Your task to perform on an android device: Open calendar and show me the first week of next month Image 0: 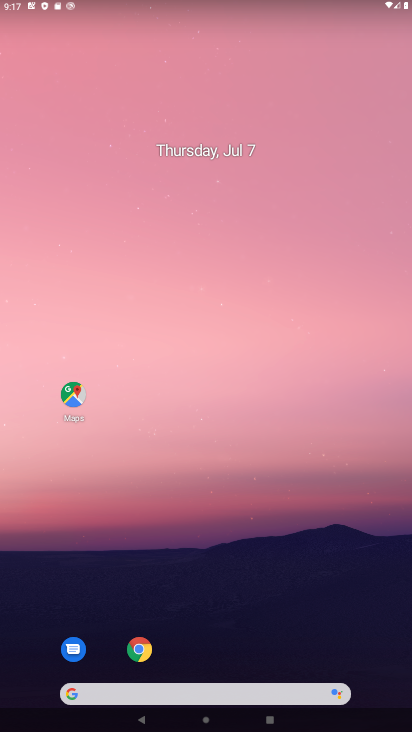
Step 0: drag from (233, 724) to (207, 152)
Your task to perform on an android device: Open calendar and show me the first week of next month Image 1: 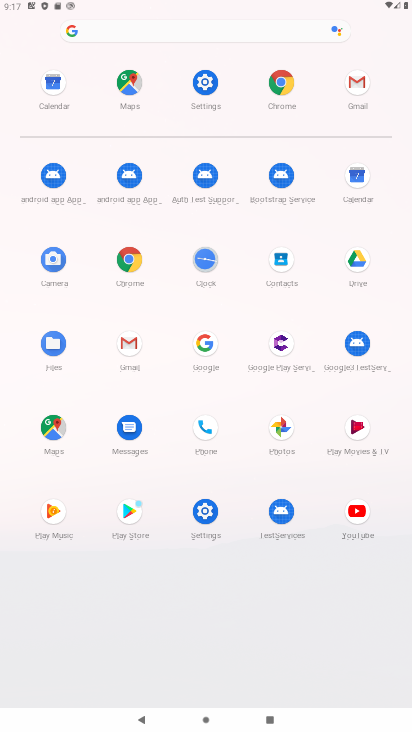
Step 1: click (363, 171)
Your task to perform on an android device: Open calendar and show me the first week of next month Image 2: 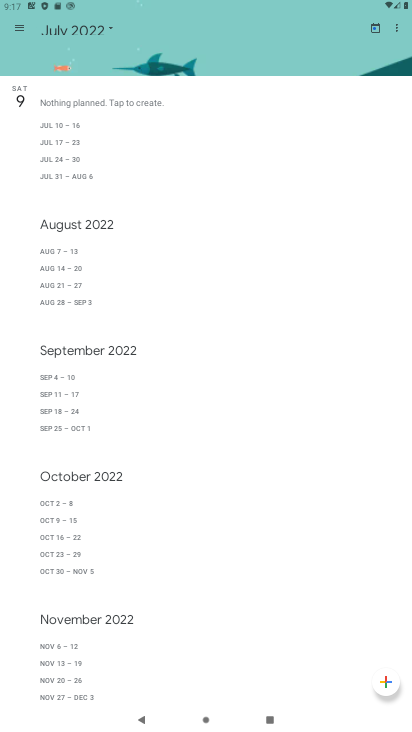
Step 2: click (105, 27)
Your task to perform on an android device: Open calendar and show me the first week of next month Image 3: 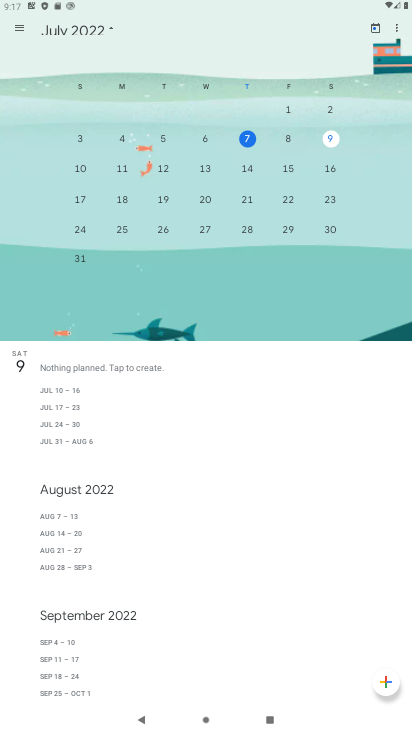
Step 3: drag from (295, 179) to (34, 382)
Your task to perform on an android device: Open calendar and show me the first week of next month Image 4: 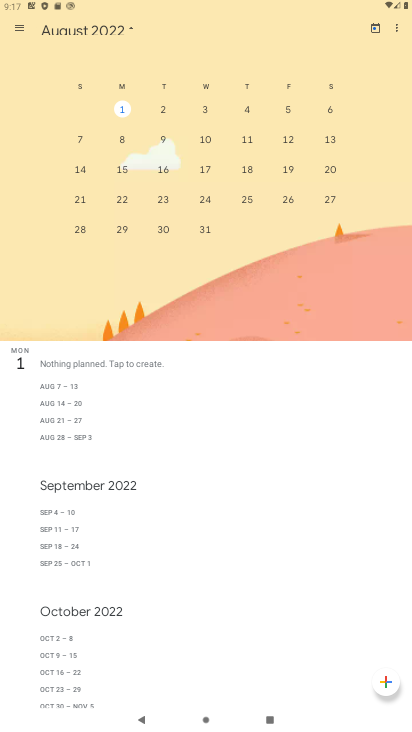
Step 4: click (16, 28)
Your task to perform on an android device: Open calendar and show me the first week of next month Image 5: 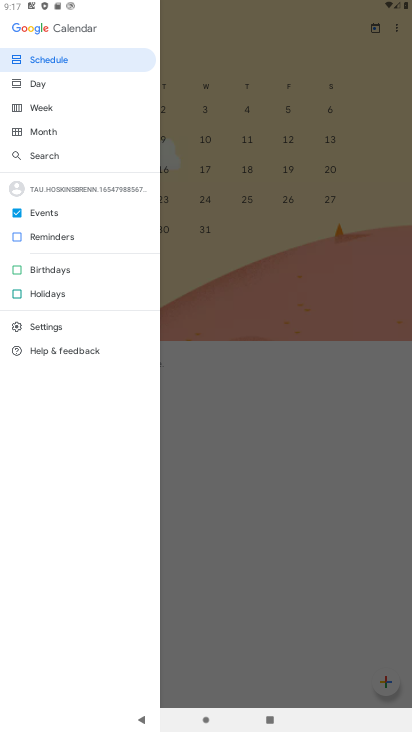
Step 5: click (43, 109)
Your task to perform on an android device: Open calendar and show me the first week of next month Image 6: 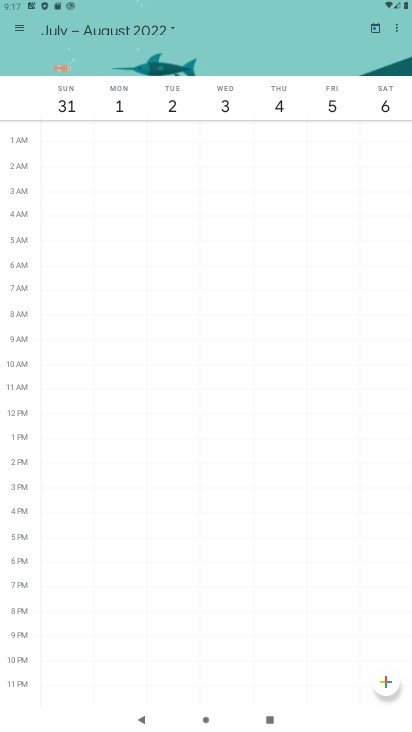
Step 6: task complete